Your task to perform on an android device: Show me productivity apps on the Play Store Image 0: 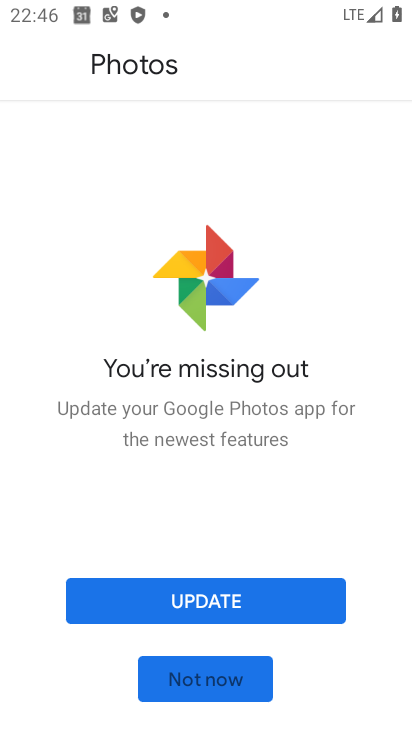
Step 0: press home button
Your task to perform on an android device: Show me productivity apps on the Play Store Image 1: 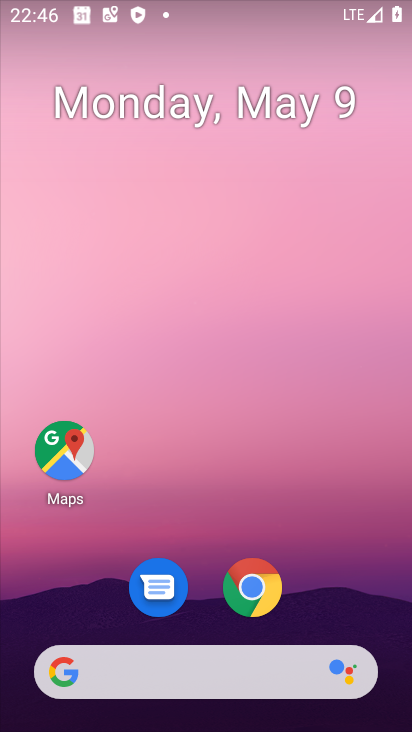
Step 1: drag from (199, 624) to (309, 4)
Your task to perform on an android device: Show me productivity apps on the Play Store Image 2: 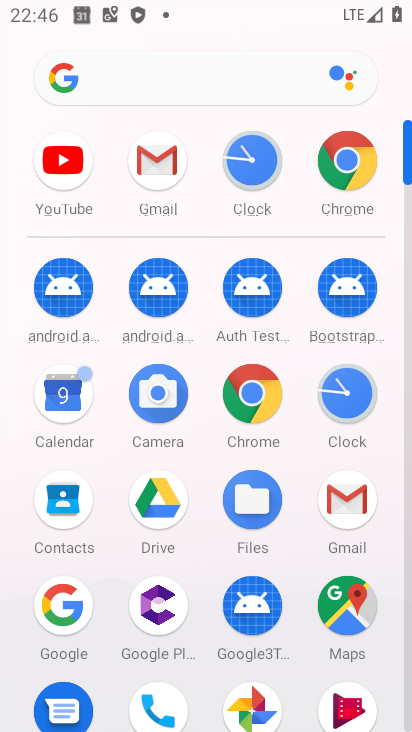
Step 2: drag from (200, 663) to (235, 305)
Your task to perform on an android device: Show me productivity apps on the Play Store Image 3: 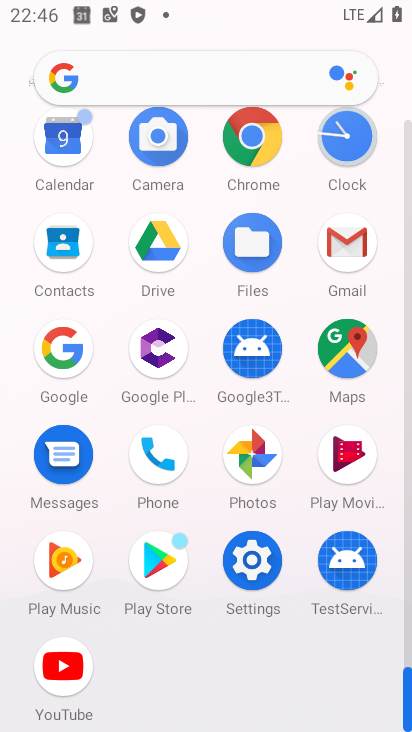
Step 3: click (160, 530)
Your task to perform on an android device: Show me productivity apps on the Play Store Image 4: 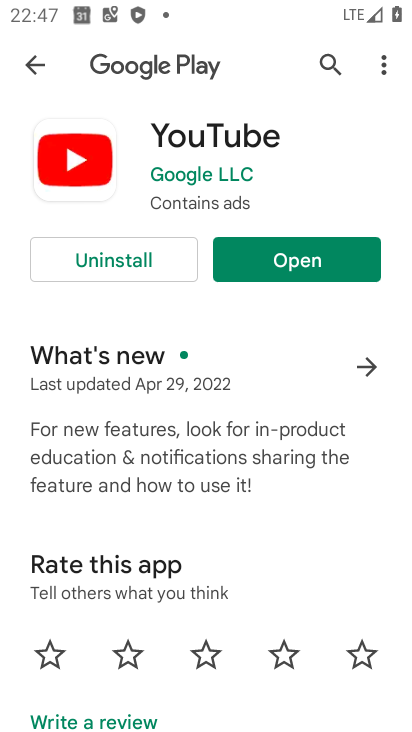
Step 4: click (72, 52)
Your task to perform on an android device: Show me productivity apps on the Play Store Image 5: 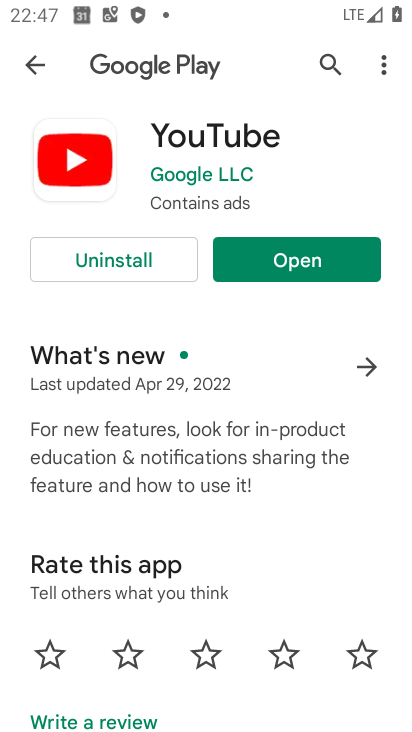
Step 5: click (35, 65)
Your task to perform on an android device: Show me productivity apps on the Play Store Image 6: 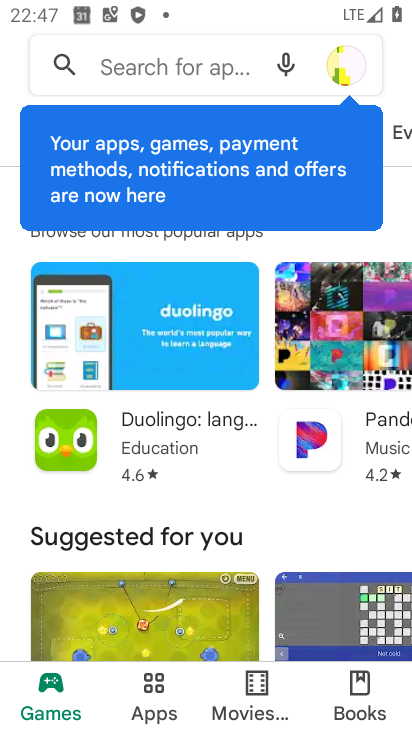
Step 6: click (143, 695)
Your task to perform on an android device: Show me productivity apps on the Play Store Image 7: 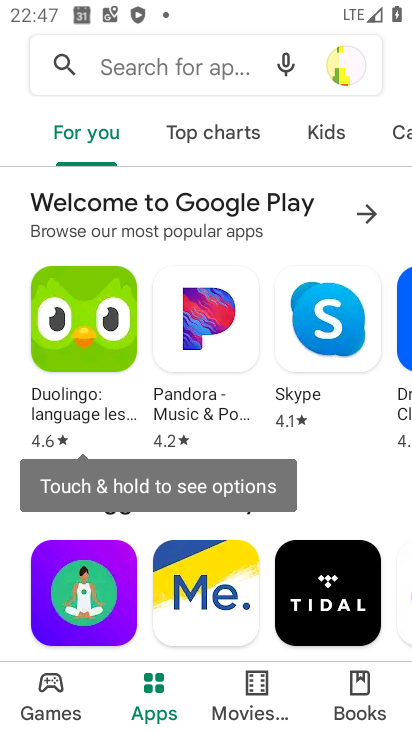
Step 7: click (392, 140)
Your task to perform on an android device: Show me productivity apps on the Play Store Image 8: 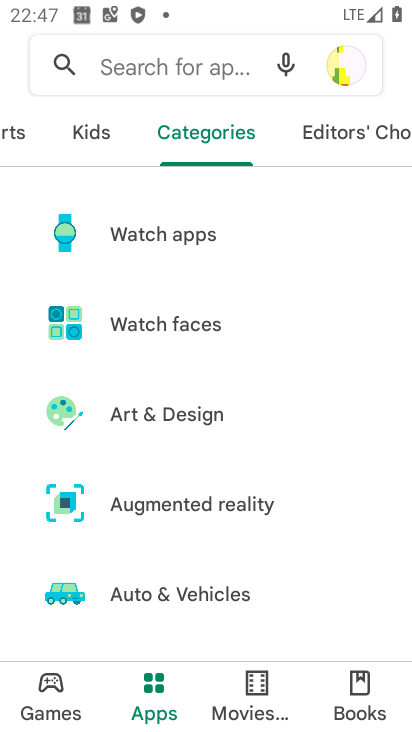
Step 8: drag from (203, 627) to (243, 546)
Your task to perform on an android device: Show me productivity apps on the Play Store Image 9: 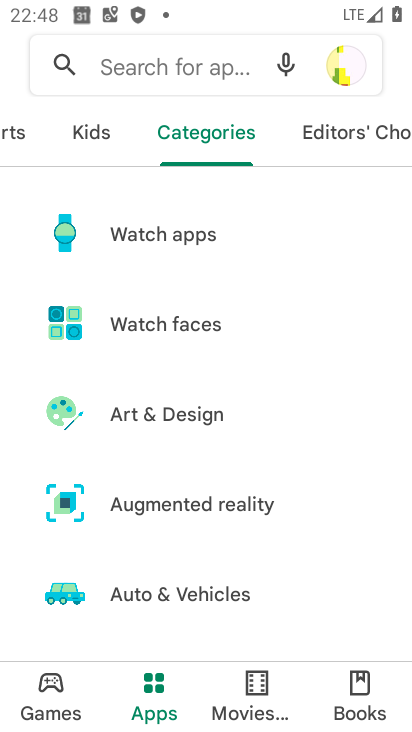
Step 9: drag from (34, 612) to (65, 487)
Your task to perform on an android device: Show me productivity apps on the Play Store Image 10: 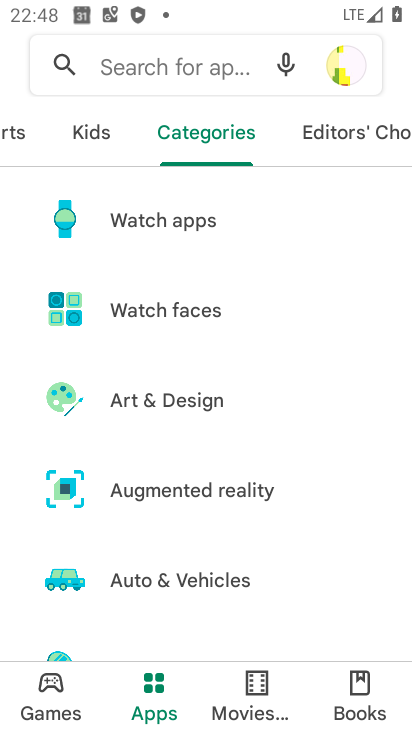
Step 10: drag from (77, 635) to (315, 4)
Your task to perform on an android device: Show me productivity apps on the Play Store Image 11: 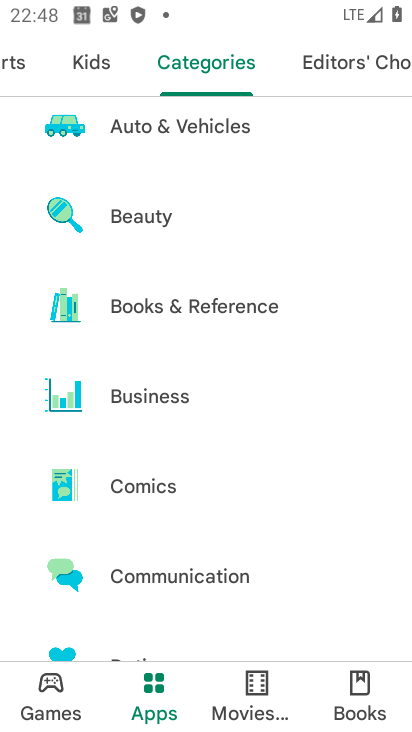
Step 11: drag from (147, 516) to (277, 125)
Your task to perform on an android device: Show me productivity apps on the Play Store Image 12: 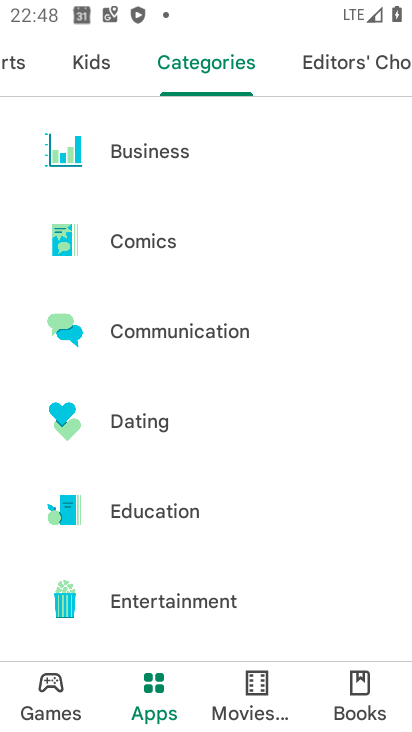
Step 12: drag from (77, 538) to (271, 44)
Your task to perform on an android device: Show me productivity apps on the Play Store Image 13: 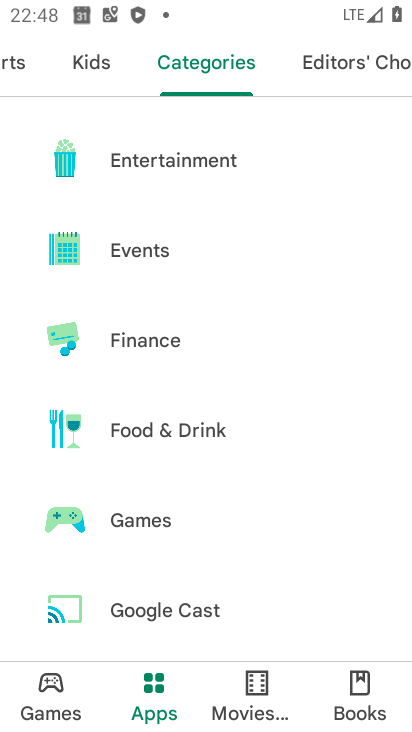
Step 13: drag from (99, 559) to (253, 134)
Your task to perform on an android device: Show me productivity apps on the Play Store Image 14: 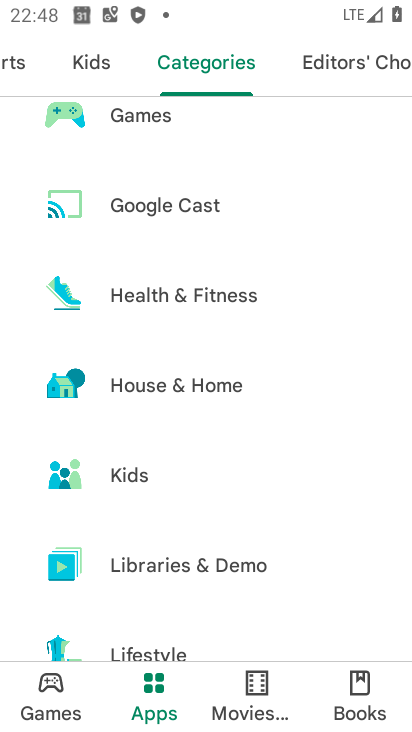
Step 14: drag from (117, 613) to (195, 333)
Your task to perform on an android device: Show me productivity apps on the Play Store Image 15: 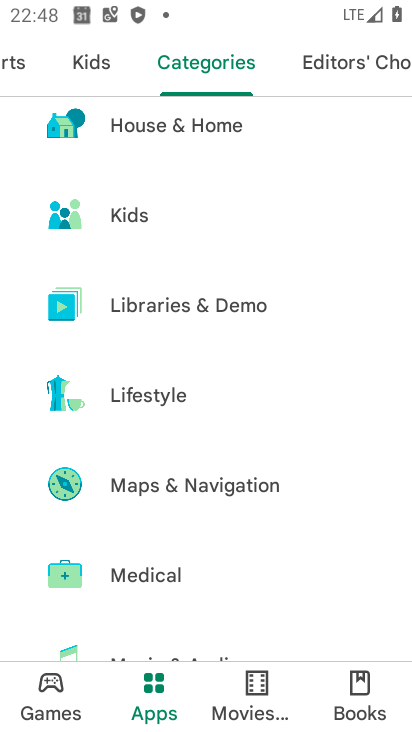
Step 15: drag from (62, 649) to (221, 219)
Your task to perform on an android device: Show me productivity apps on the Play Store Image 16: 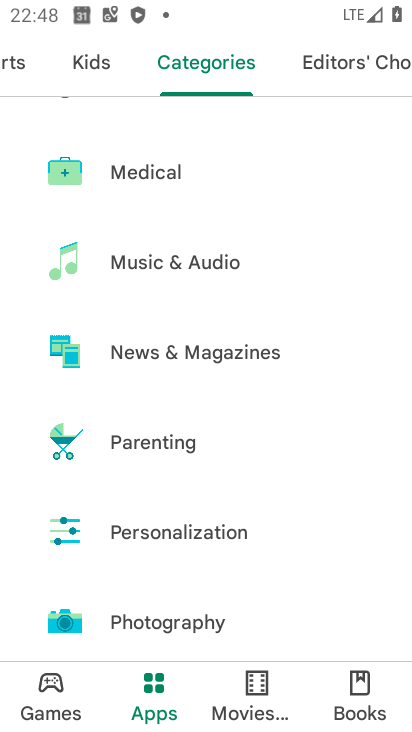
Step 16: drag from (145, 570) to (261, 196)
Your task to perform on an android device: Show me productivity apps on the Play Store Image 17: 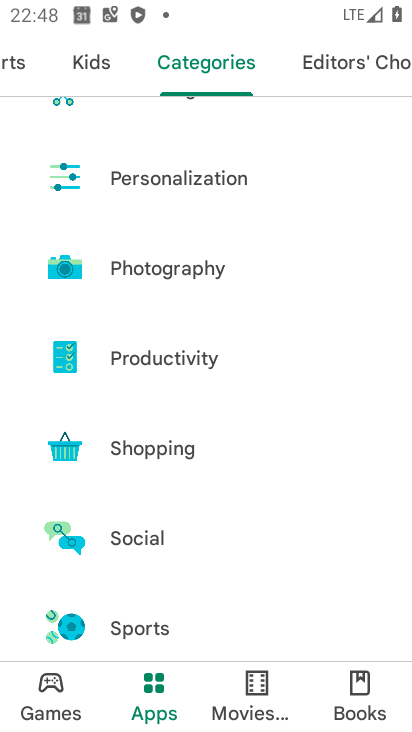
Step 17: click (182, 393)
Your task to perform on an android device: Show me productivity apps on the Play Store Image 18: 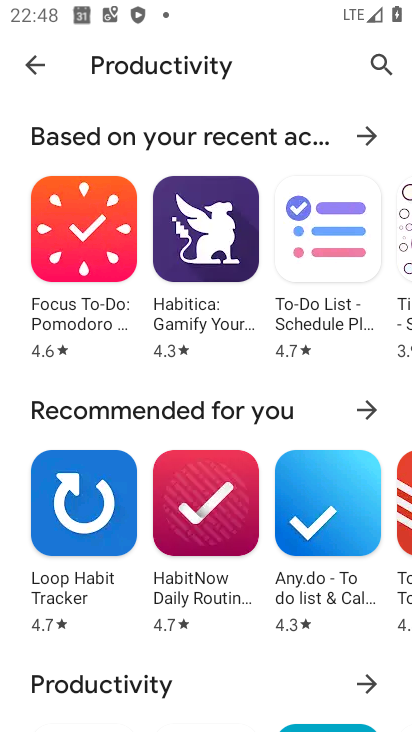
Step 18: task complete